Your task to perform on an android device: Go to internet settings Image 0: 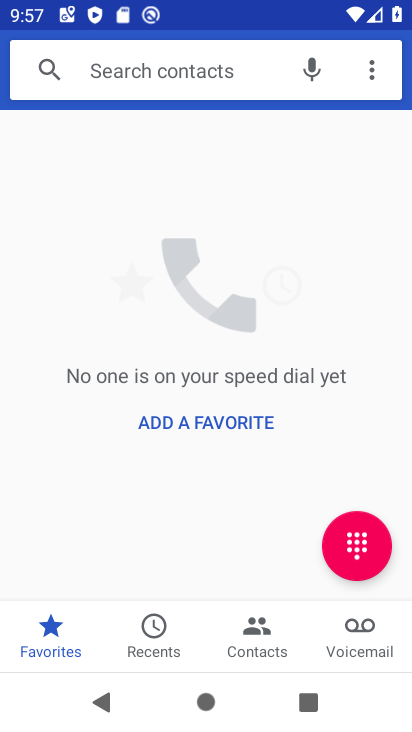
Step 0: press home button
Your task to perform on an android device: Go to internet settings Image 1: 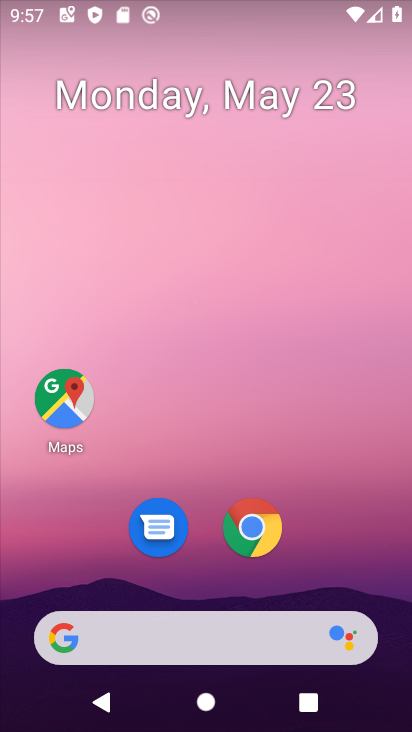
Step 1: drag from (188, 632) to (184, 236)
Your task to perform on an android device: Go to internet settings Image 2: 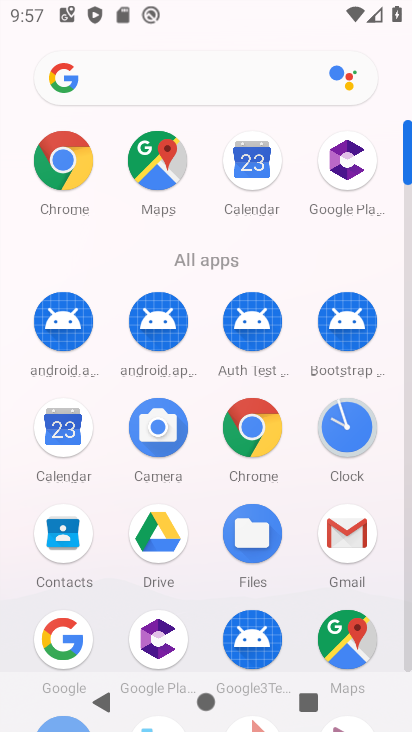
Step 2: drag from (215, 611) to (186, 241)
Your task to perform on an android device: Go to internet settings Image 3: 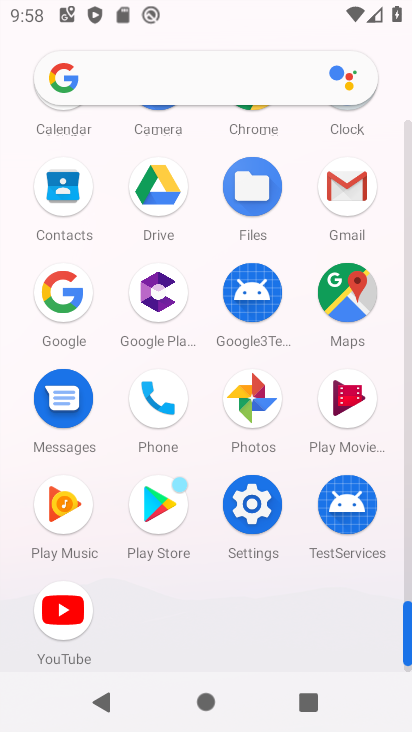
Step 3: click (249, 526)
Your task to perform on an android device: Go to internet settings Image 4: 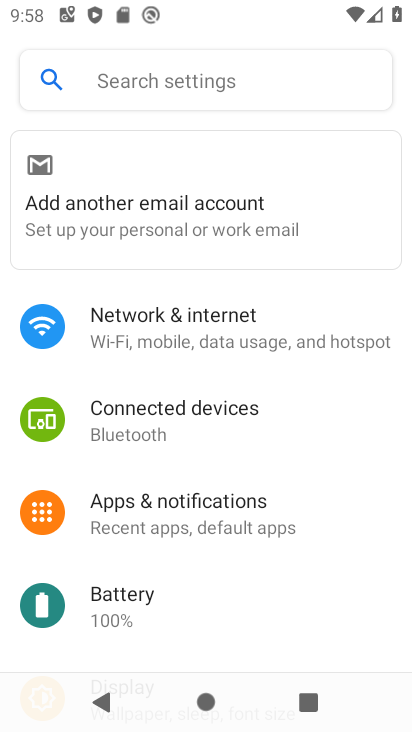
Step 4: click (161, 342)
Your task to perform on an android device: Go to internet settings Image 5: 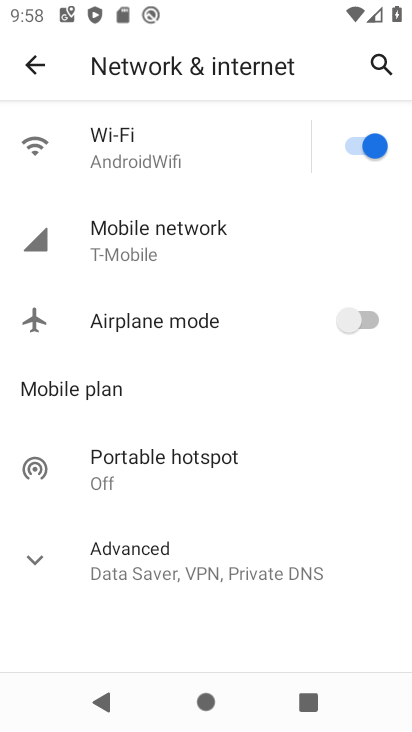
Step 5: task complete